Your task to perform on an android device: Go to Maps Image 0: 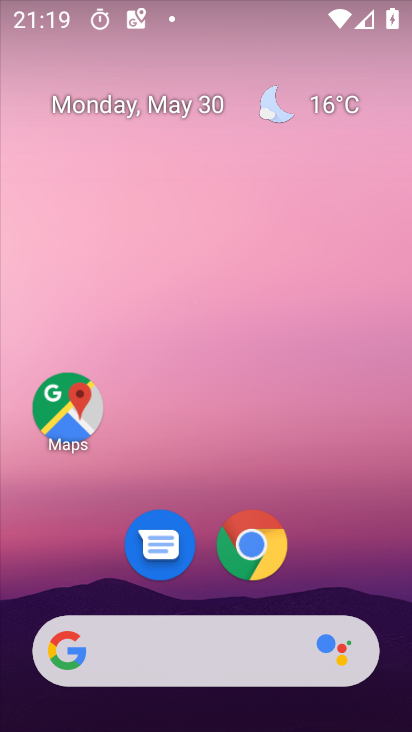
Step 0: click (59, 412)
Your task to perform on an android device: Go to Maps Image 1: 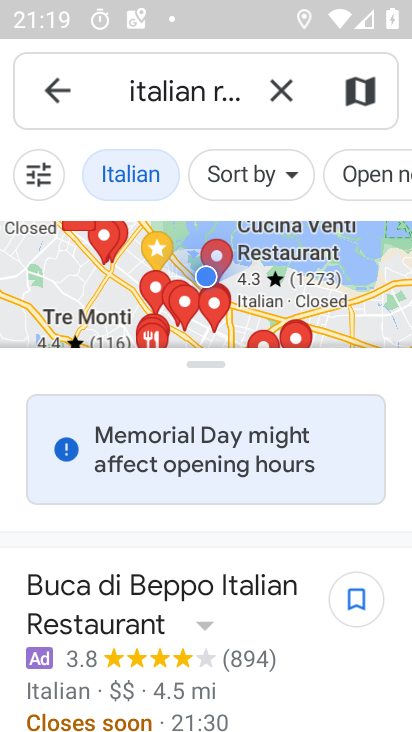
Step 1: task complete